Your task to perform on an android device: turn on the 24-hour format for clock Image 0: 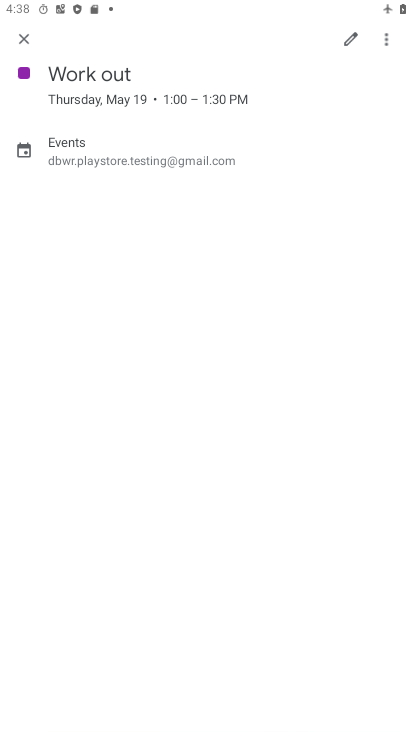
Step 0: click (25, 34)
Your task to perform on an android device: turn on the 24-hour format for clock Image 1: 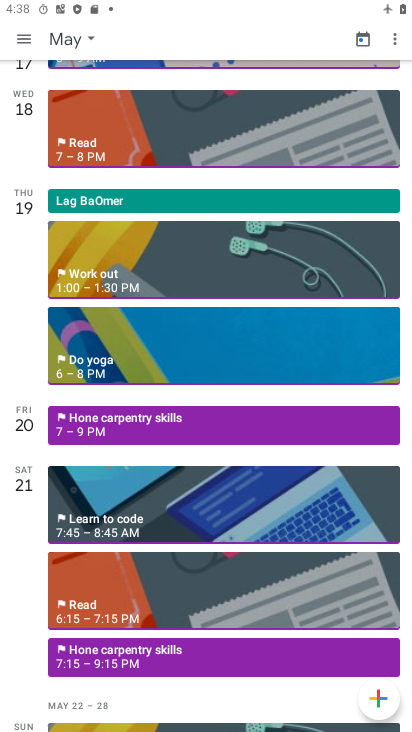
Step 1: press home button
Your task to perform on an android device: turn on the 24-hour format for clock Image 2: 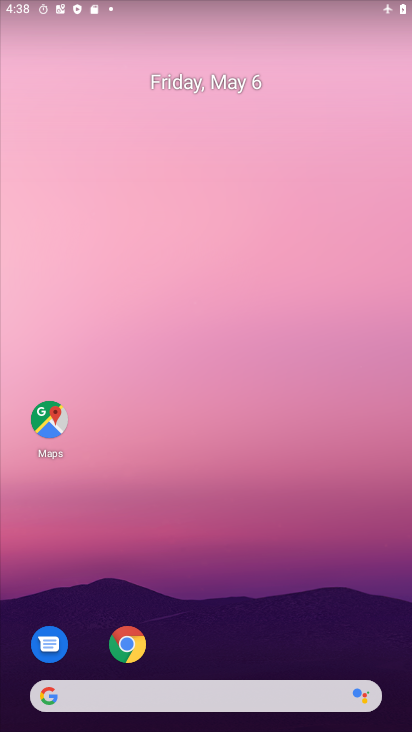
Step 2: drag from (224, 662) to (35, 1)
Your task to perform on an android device: turn on the 24-hour format for clock Image 3: 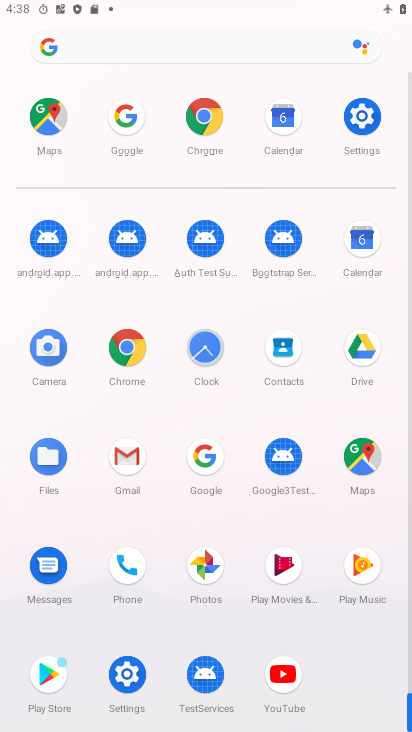
Step 3: click (204, 337)
Your task to perform on an android device: turn on the 24-hour format for clock Image 4: 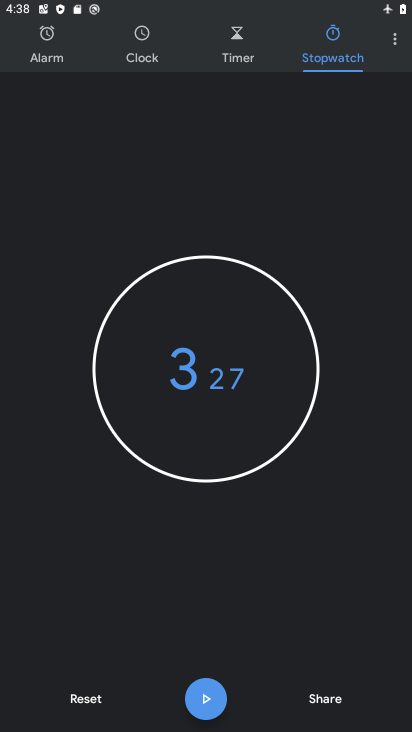
Step 4: click (388, 44)
Your task to perform on an android device: turn on the 24-hour format for clock Image 5: 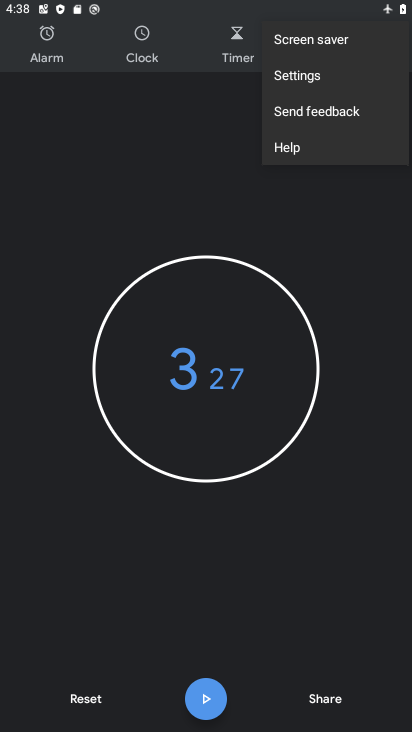
Step 5: click (288, 64)
Your task to perform on an android device: turn on the 24-hour format for clock Image 6: 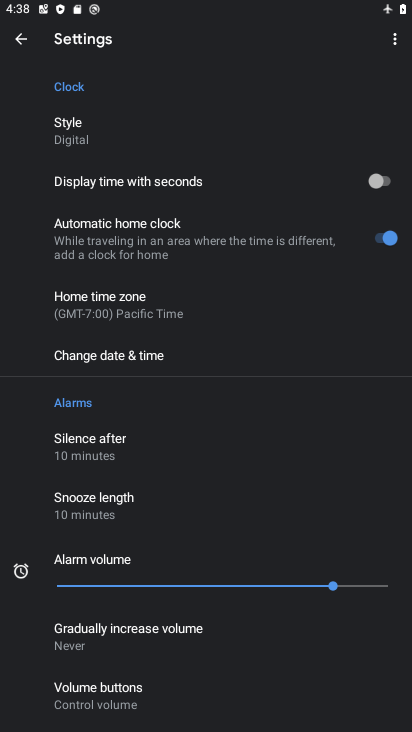
Step 6: click (103, 359)
Your task to perform on an android device: turn on the 24-hour format for clock Image 7: 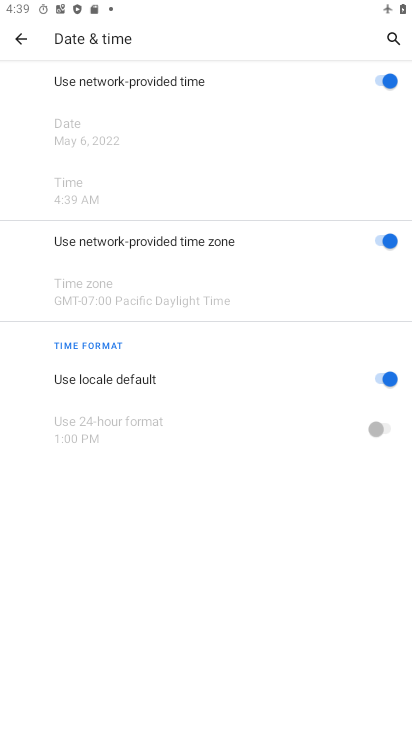
Step 7: drag from (373, 431) to (407, 410)
Your task to perform on an android device: turn on the 24-hour format for clock Image 8: 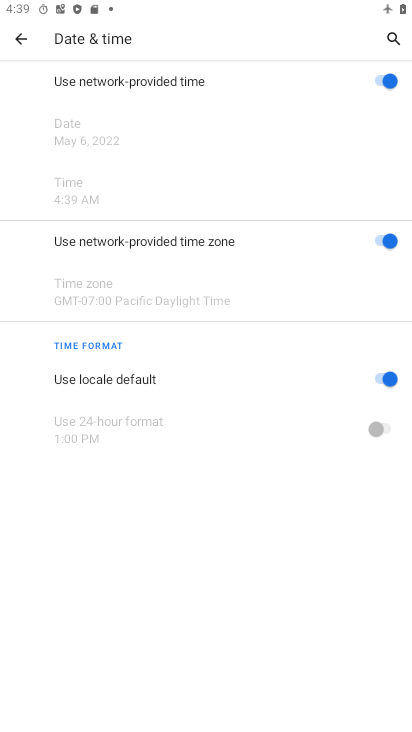
Step 8: click (391, 380)
Your task to perform on an android device: turn on the 24-hour format for clock Image 9: 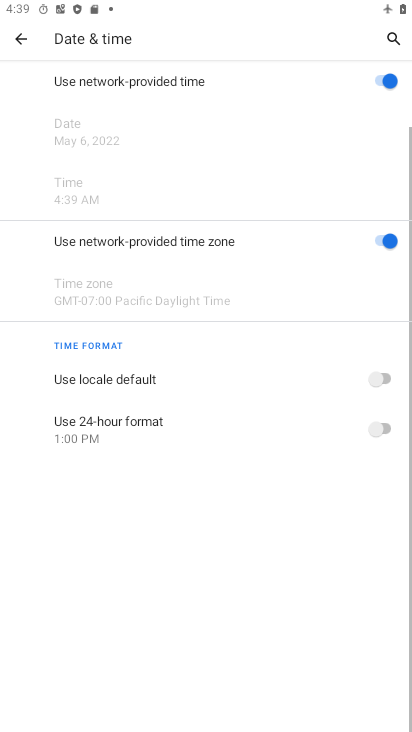
Step 9: click (377, 432)
Your task to perform on an android device: turn on the 24-hour format for clock Image 10: 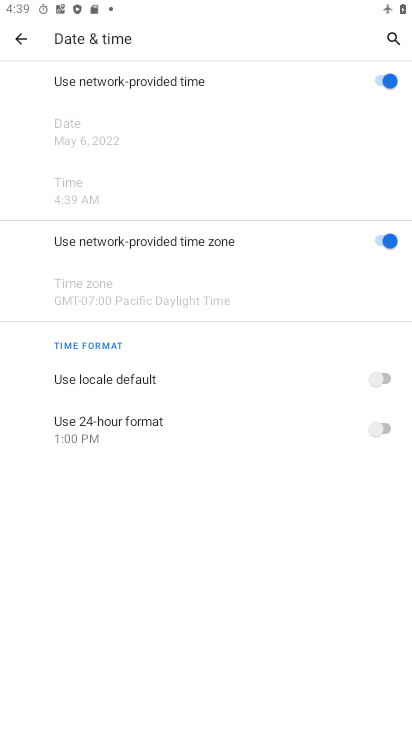
Step 10: click (381, 431)
Your task to perform on an android device: turn on the 24-hour format for clock Image 11: 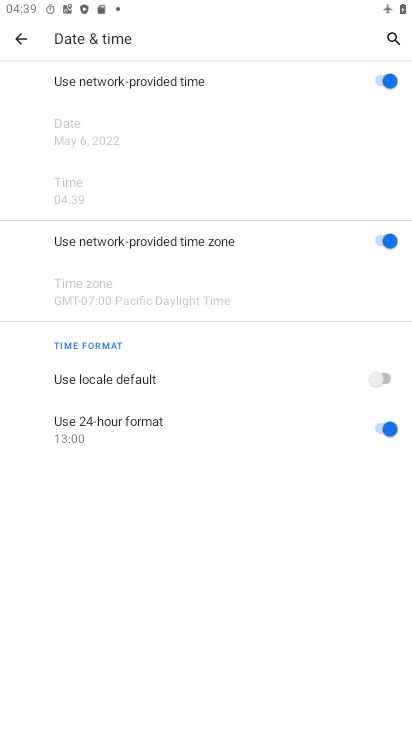
Step 11: task complete